Your task to perform on an android device: toggle airplane mode Image 0: 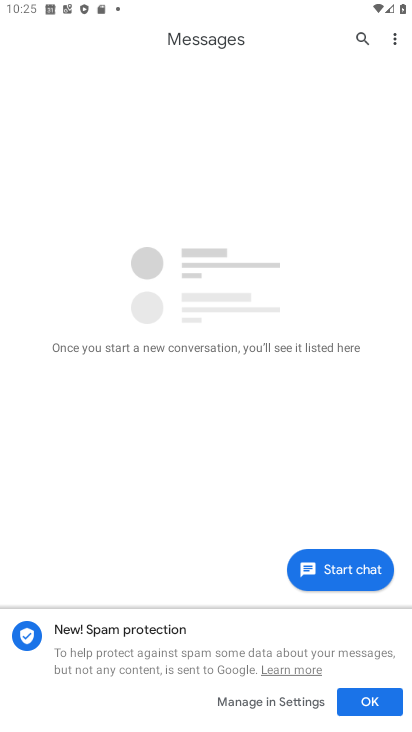
Step 0: press home button
Your task to perform on an android device: toggle airplane mode Image 1: 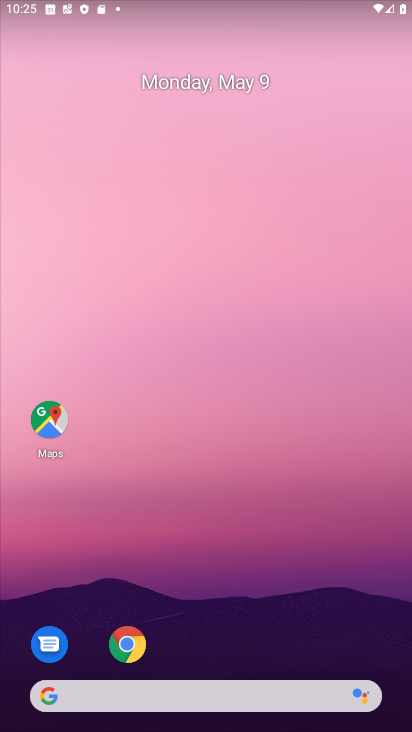
Step 1: drag from (196, 668) to (330, 136)
Your task to perform on an android device: toggle airplane mode Image 2: 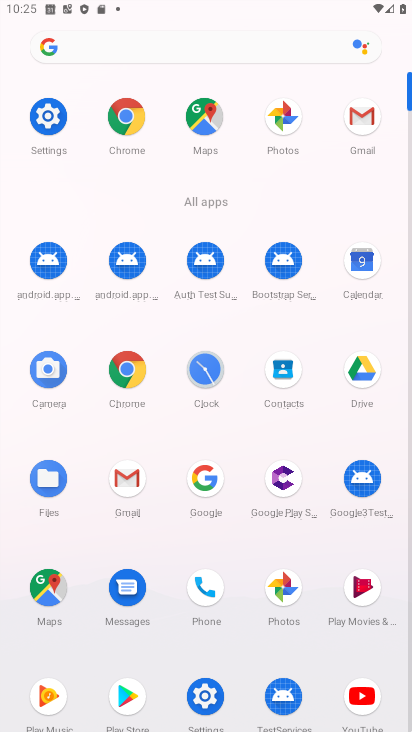
Step 2: click (204, 692)
Your task to perform on an android device: toggle airplane mode Image 3: 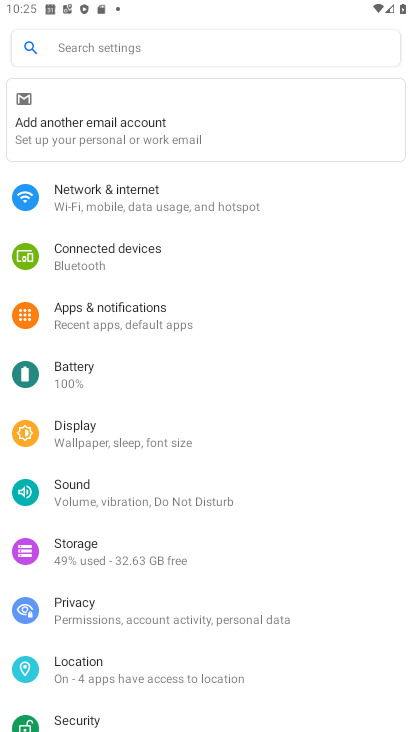
Step 3: click (121, 219)
Your task to perform on an android device: toggle airplane mode Image 4: 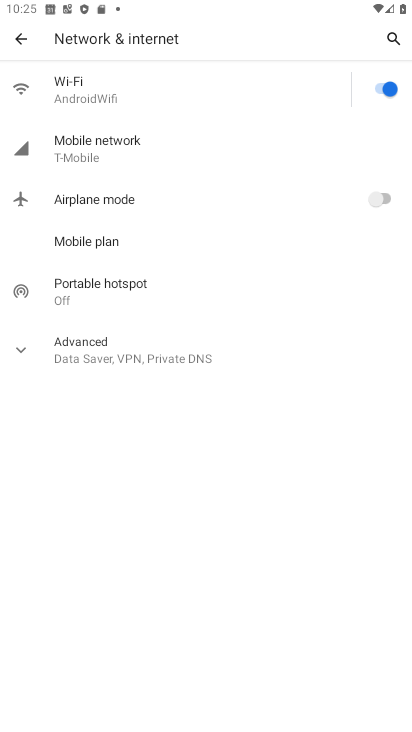
Step 4: click (382, 200)
Your task to perform on an android device: toggle airplane mode Image 5: 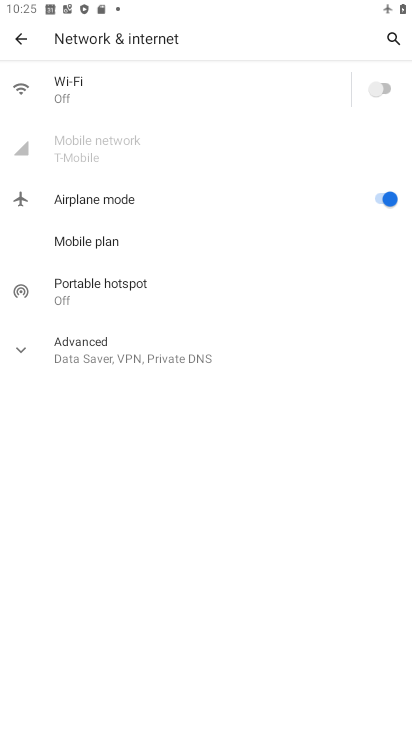
Step 5: task complete